Your task to perform on an android device: What's the weather? Image 0: 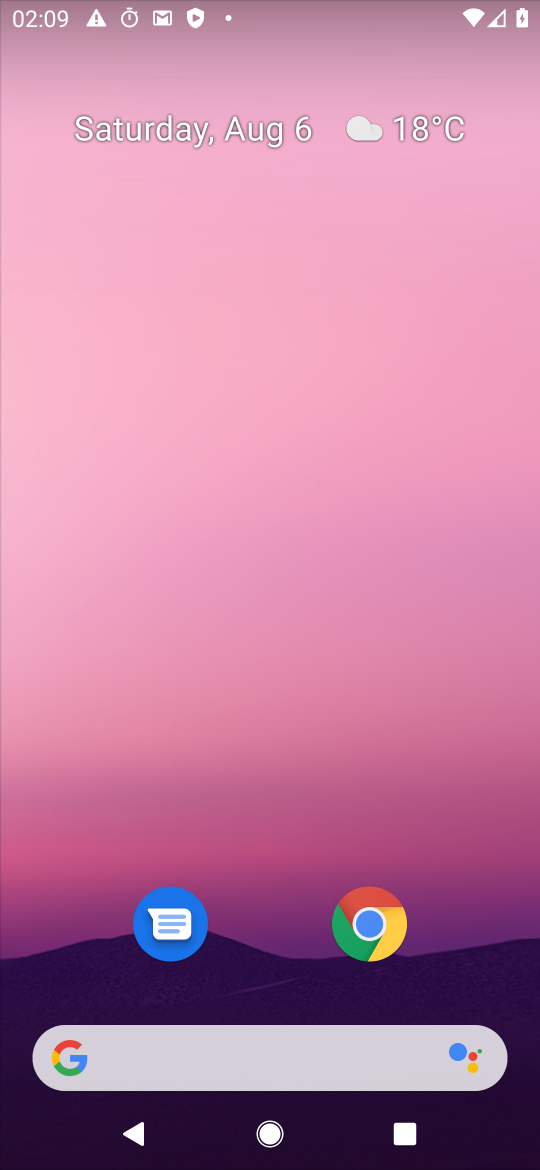
Step 0: drag from (210, 1100) to (229, 117)
Your task to perform on an android device: What's the weather? Image 1: 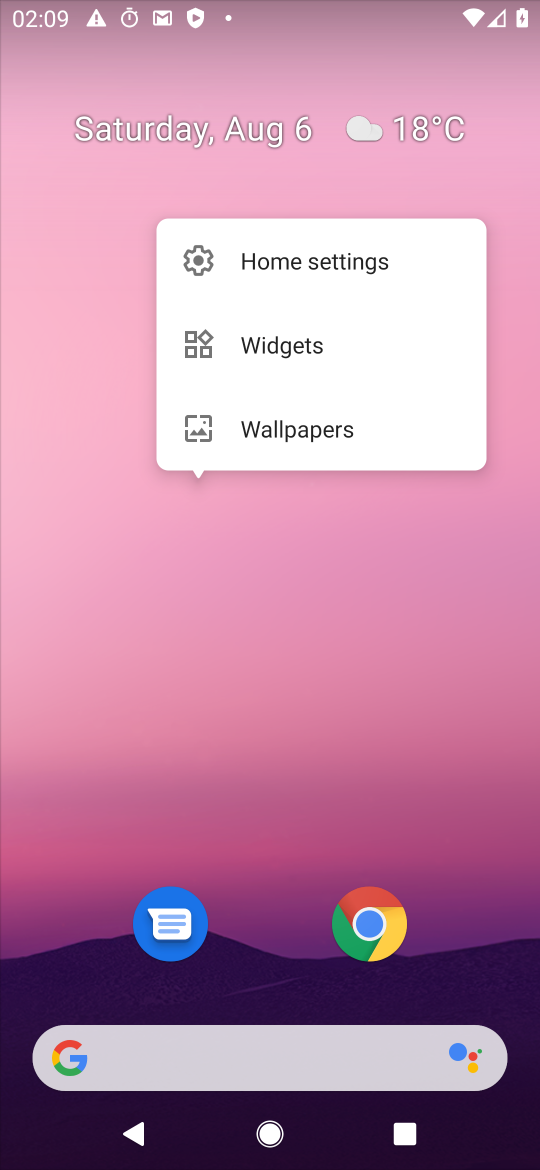
Step 1: click (483, 645)
Your task to perform on an android device: What's the weather? Image 2: 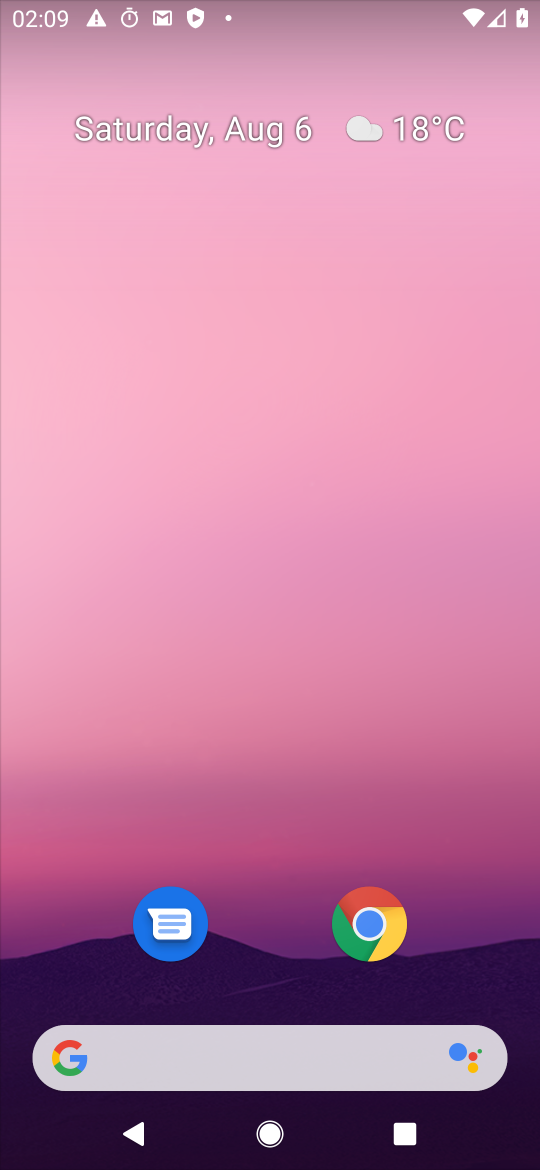
Step 2: drag from (230, 1055) to (231, 283)
Your task to perform on an android device: What's the weather? Image 3: 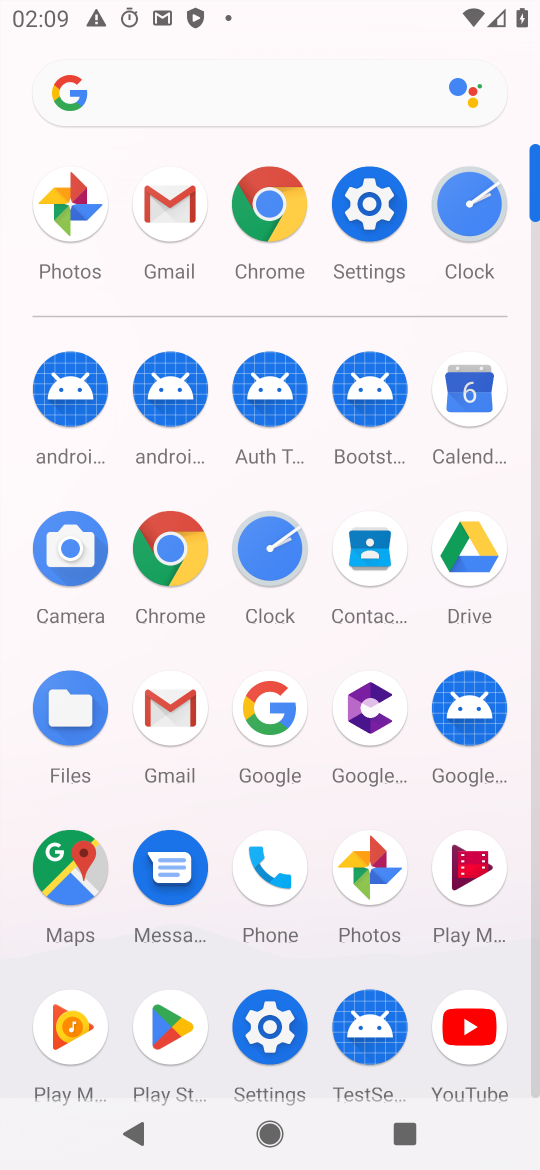
Step 3: click (154, 546)
Your task to perform on an android device: What's the weather? Image 4: 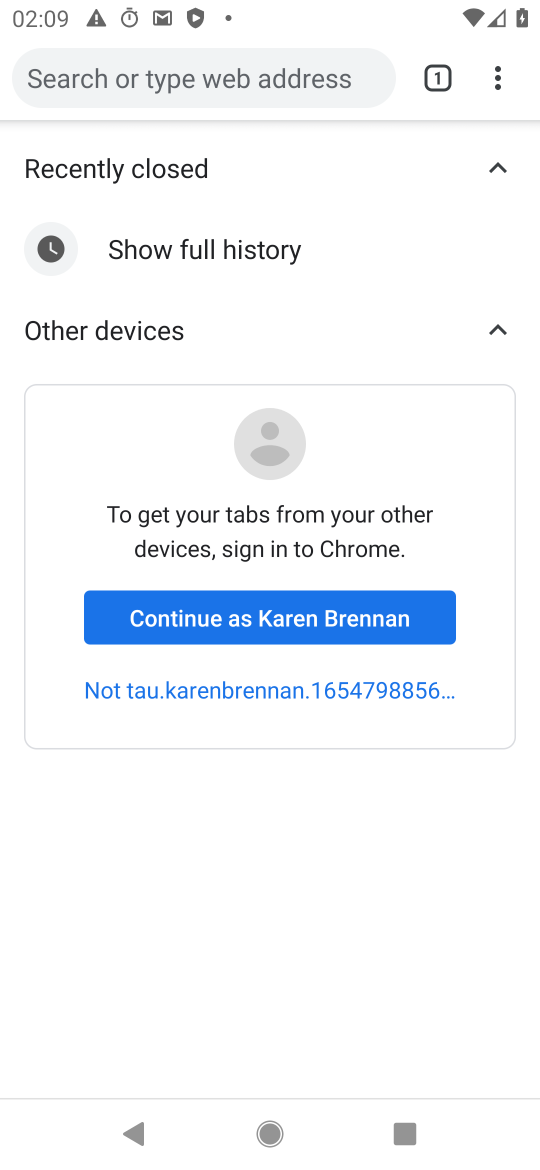
Step 4: click (331, 82)
Your task to perform on an android device: What's the weather? Image 5: 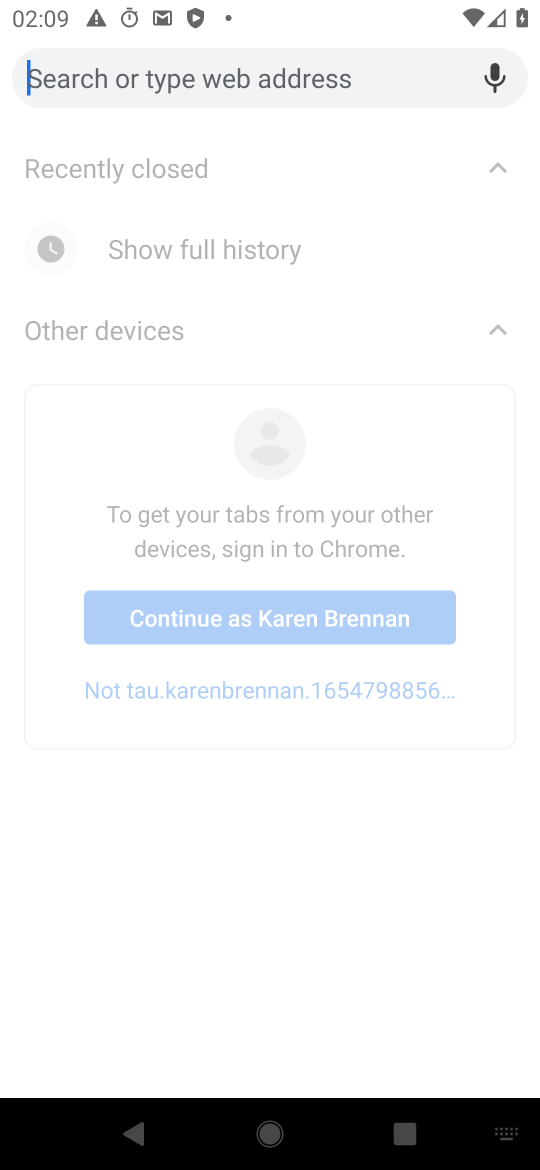
Step 5: type "what's the weather"
Your task to perform on an android device: What's the weather? Image 6: 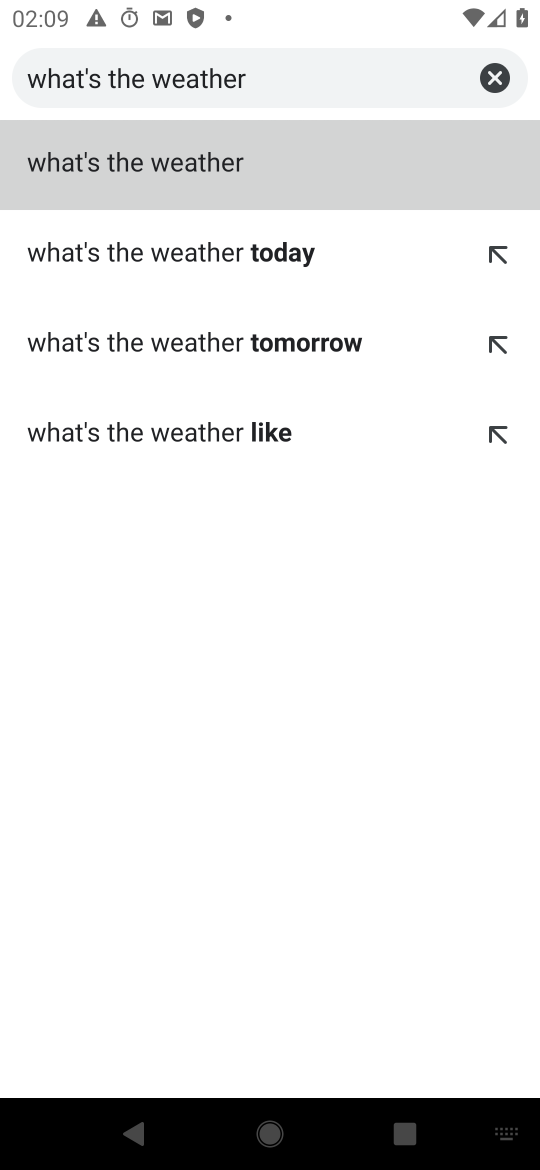
Step 6: click (339, 169)
Your task to perform on an android device: What's the weather? Image 7: 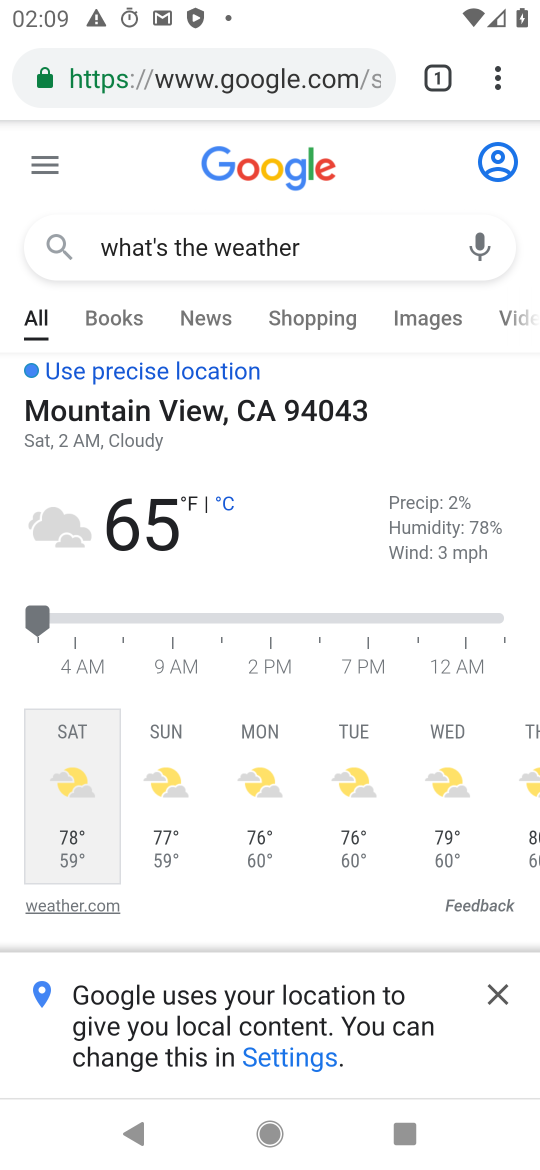
Step 7: task complete